Your task to perform on an android device: Open network settings Image 0: 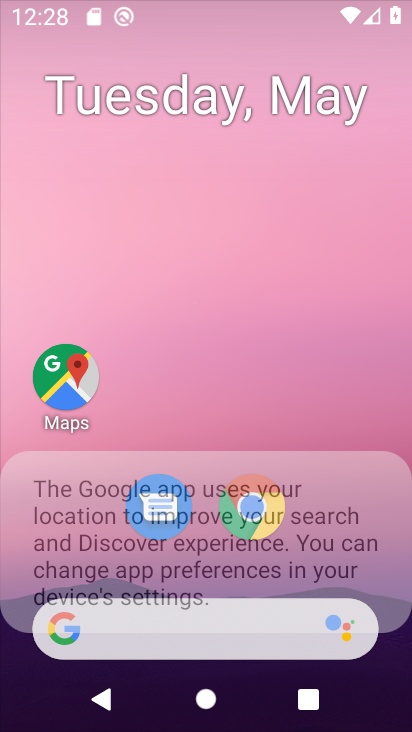
Step 0: drag from (222, 624) to (132, 192)
Your task to perform on an android device: Open network settings Image 1: 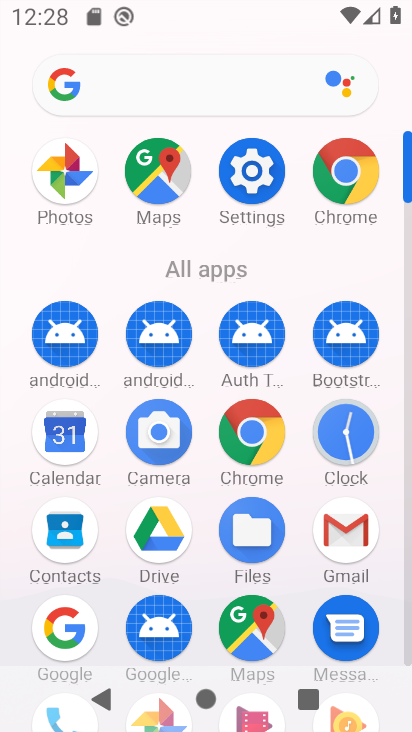
Step 1: click (235, 157)
Your task to perform on an android device: Open network settings Image 2: 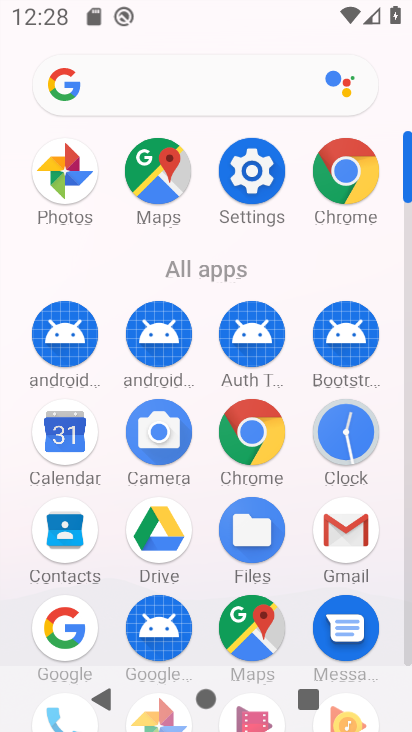
Step 2: click (235, 157)
Your task to perform on an android device: Open network settings Image 3: 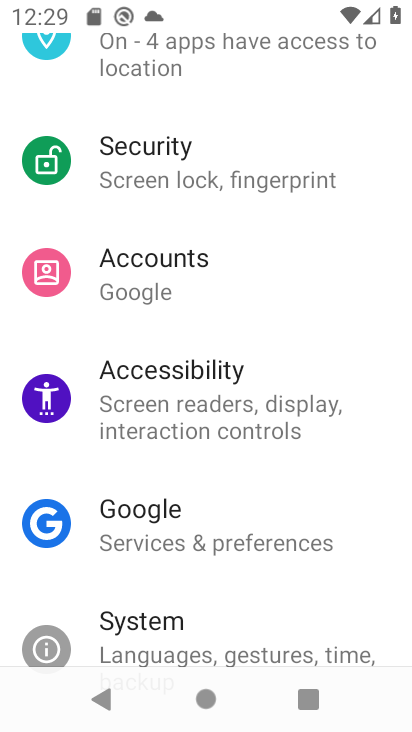
Step 3: drag from (158, 131) to (249, 562)
Your task to perform on an android device: Open network settings Image 4: 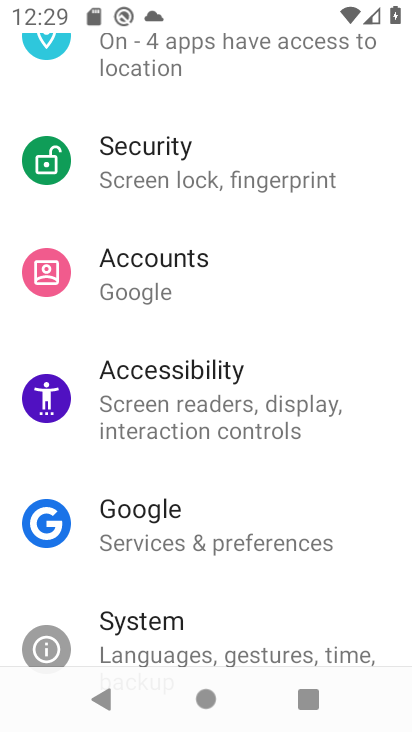
Step 4: drag from (224, 260) to (264, 712)
Your task to perform on an android device: Open network settings Image 5: 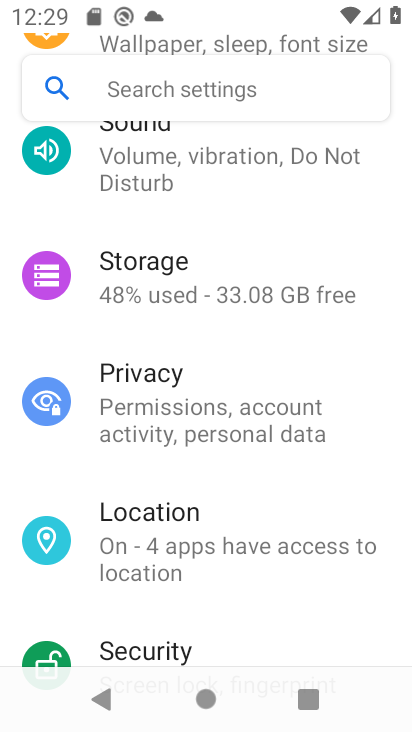
Step 5: drag from (245, 334) to (245, 660)
Your task to perform on an android device: Open network settings Image 6: 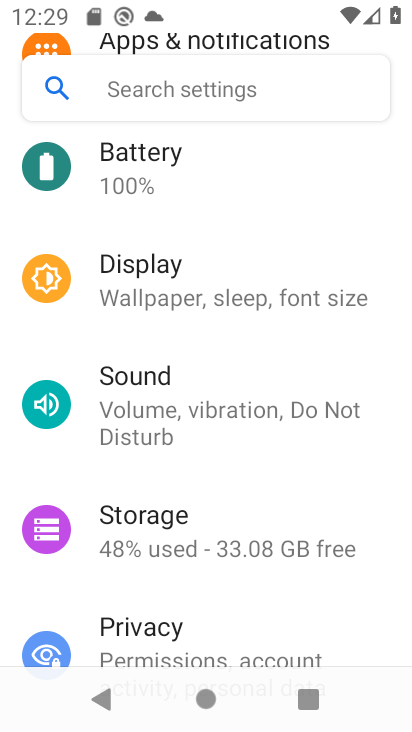
Step 6: drag from (265, 442) to (266, 655)
Your task to perform on an android device: Open network settings Image 7: 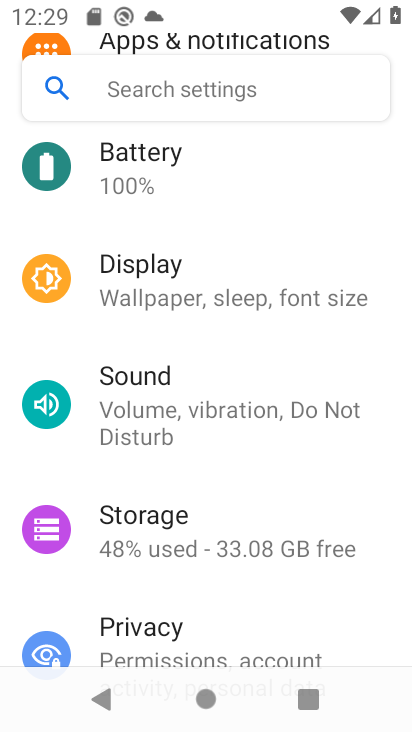
Step 7: drag from (235, 246) to (244, 555)
Your task to perform on an android device: Open network settings Image 8: 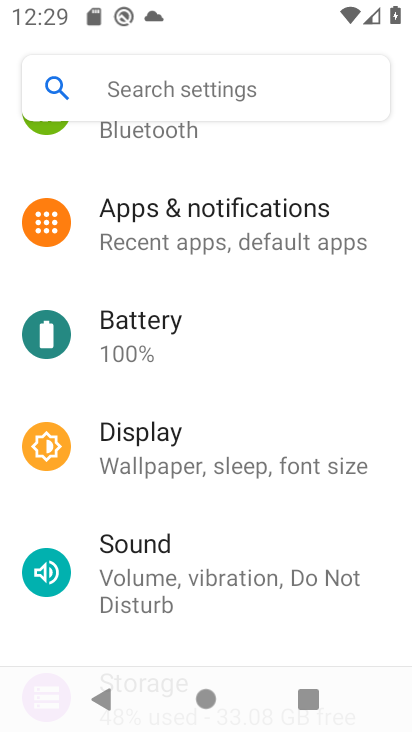
Step 8: drag from (255, 378) to (169, 596)
Your task to perform on an android device: Open network settings Image 9: 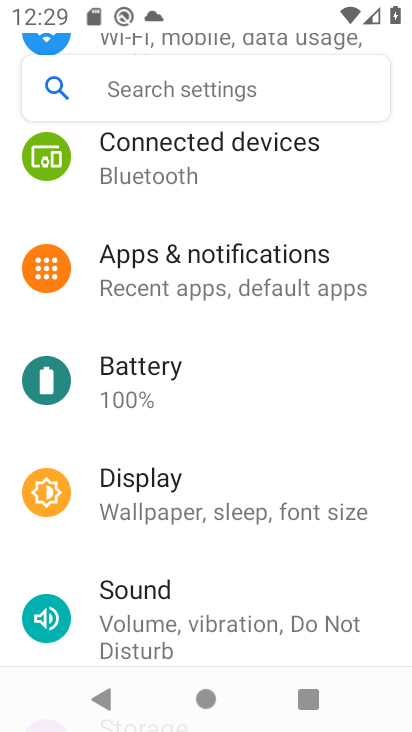
Step 9: drag from (169, 266) to (169, 560)
Your task to perform on an android device: Open network settings Image 10: 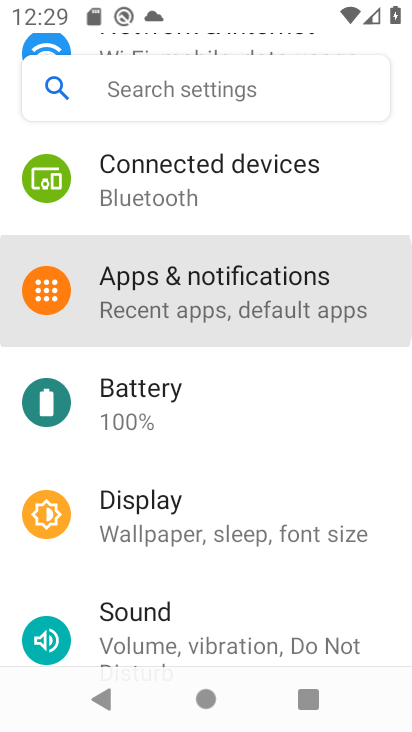
Step 10: drag from (173, 450) to (174, 507)
Your task to perform on an android device: Open network settings Image 11: 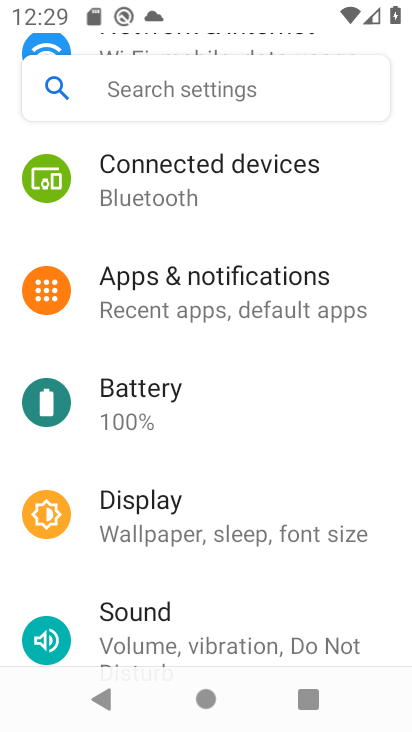
Step 11: drag from (247, 238) to (247, 477)
Your task to perform on an android device: Open network settings Image 12: 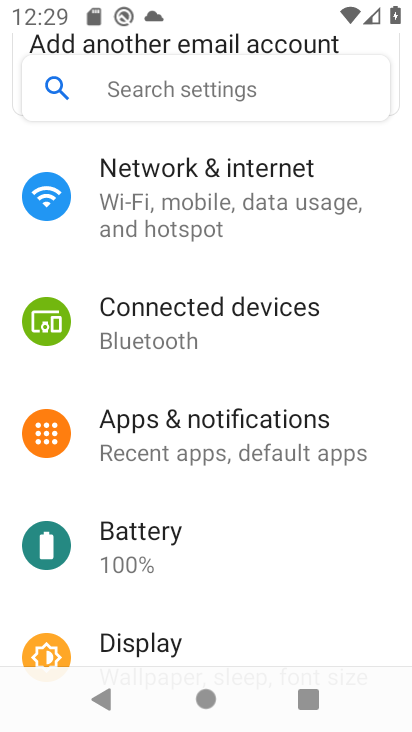
Step 12: drag from (202, 243) to (243, 531)
Your task to perform on an android device: Open network settings Image 13: 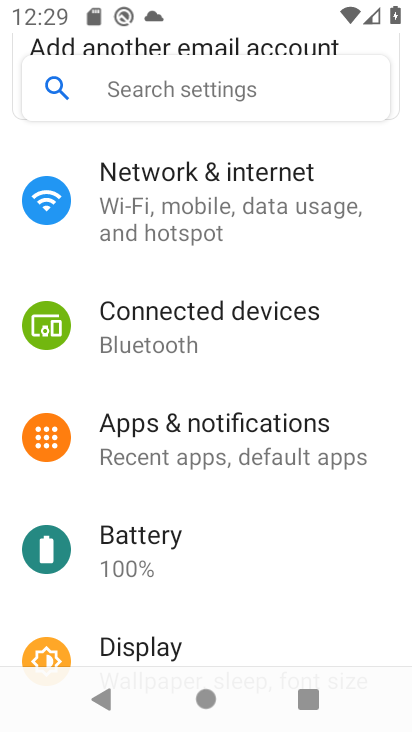
Step 13: drag from (205, 342) to (227, 508)
Your task to perform on an android device: Open network settings Image 14: 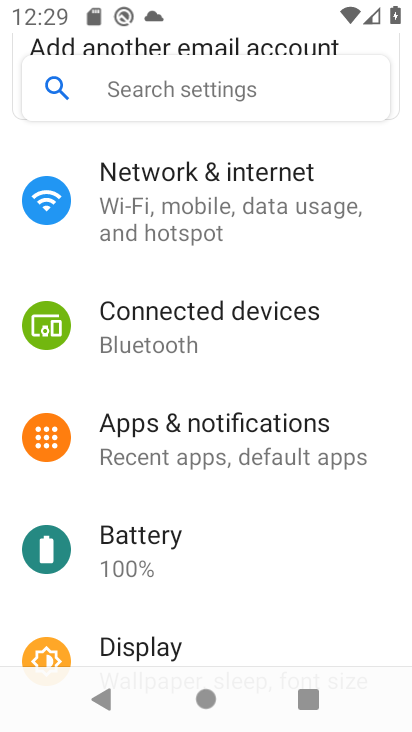
Step 14: click (200, 214)
Your task to perform on an android device: Open network settings Image 15: 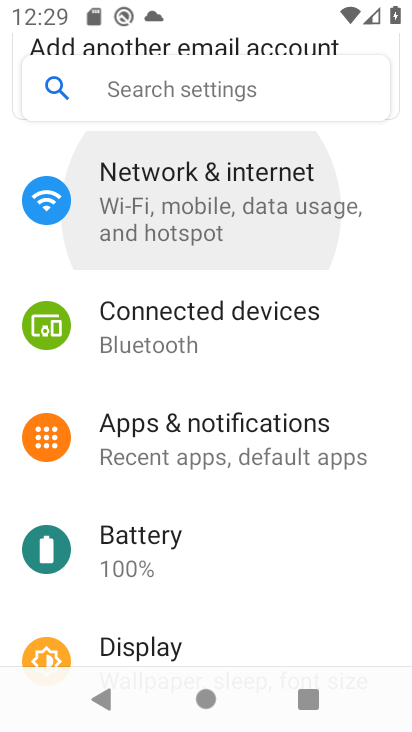
Step 15: click (200, 214)
Your task to perform on an android device: Open network settings Image 16: 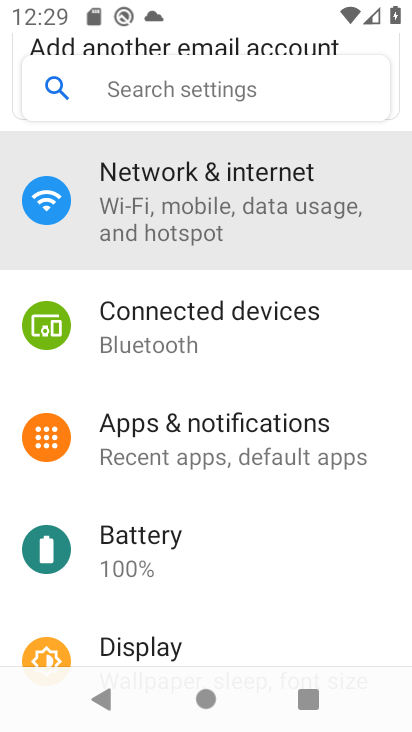
Step 16: click (200, 214)
Your task to perform on an android device: Open network settings Image 17: 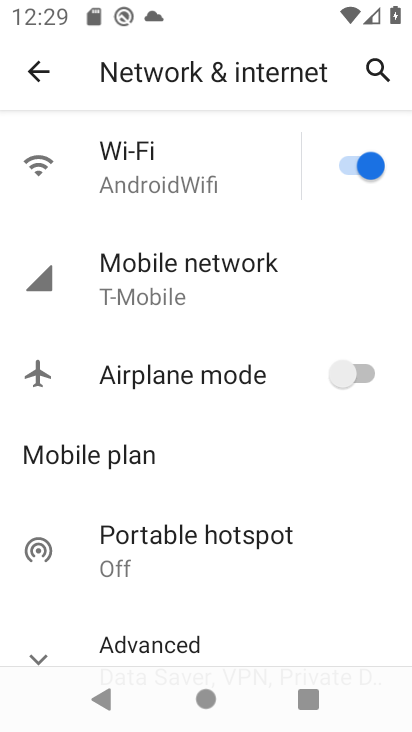
Step 17: task complete